Your task to perform on an android device: move a message to another label in the gmail app Image 0: 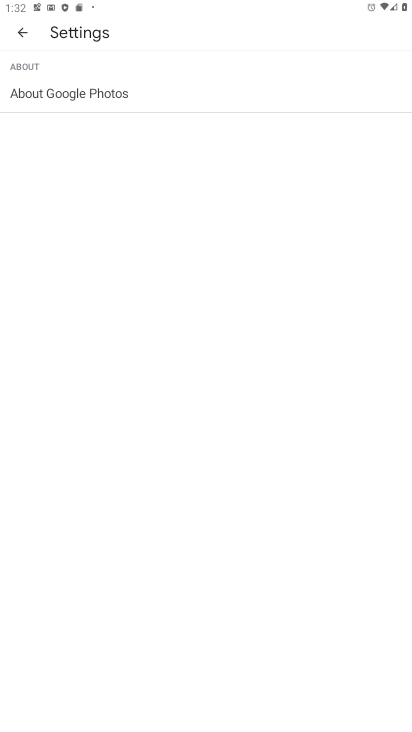
Step 0: press home button
Your task to perform on an android device: move a message to another label in the gmail app Image 1: 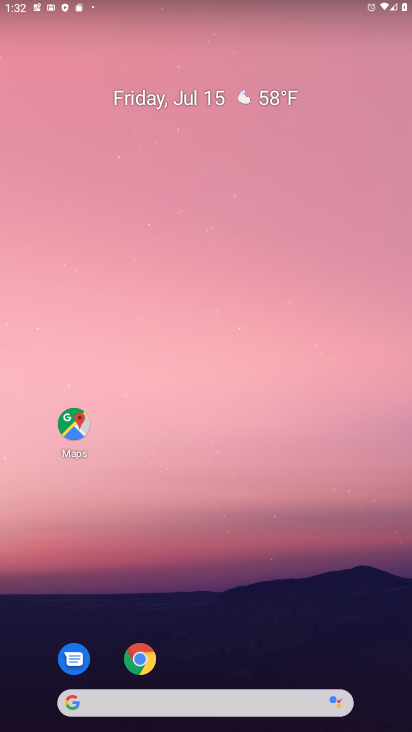
Step 1: drag from (212, 716) to (196, 119)
Your task to perform on an android device: move a message to another label in the gmail app Image 2: 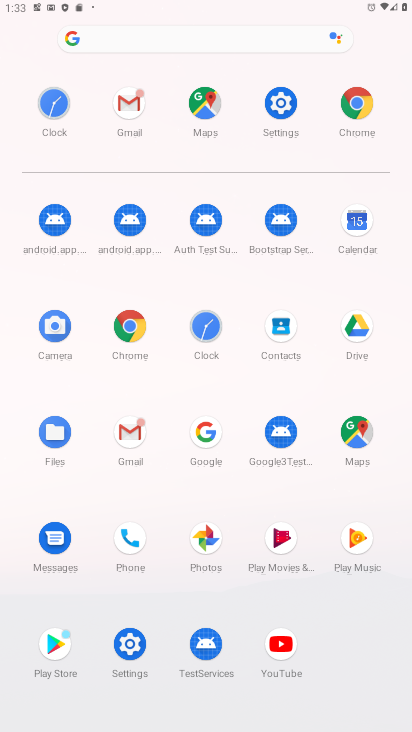
Step 2: click (125, 435)
Your task to perform on an android device: move a message to another label in the gmail app Image 3: 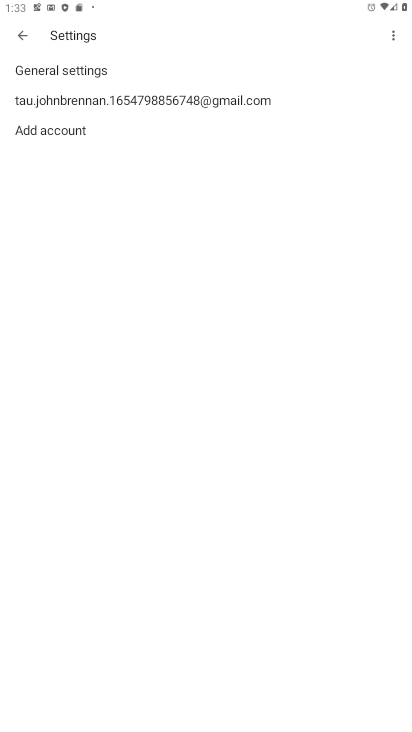
Step 3: click (18, 32)
Your task to perform on an android device: move a message to another label in the gmail app Image 4: 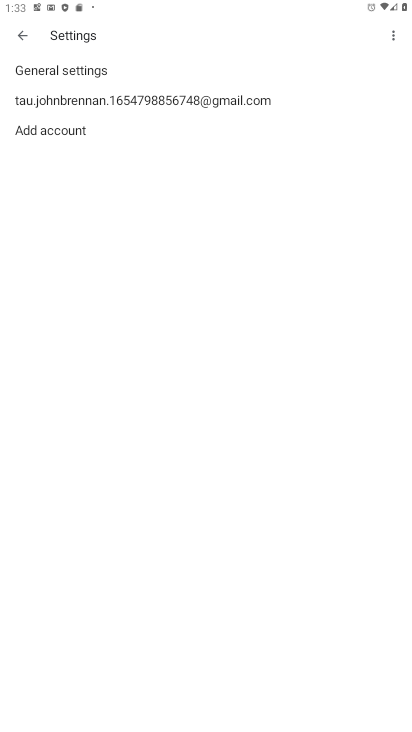
Step 4: click (18, 32)
Your task to perform on an android device: move a message to another label in the gmail app Image 5: 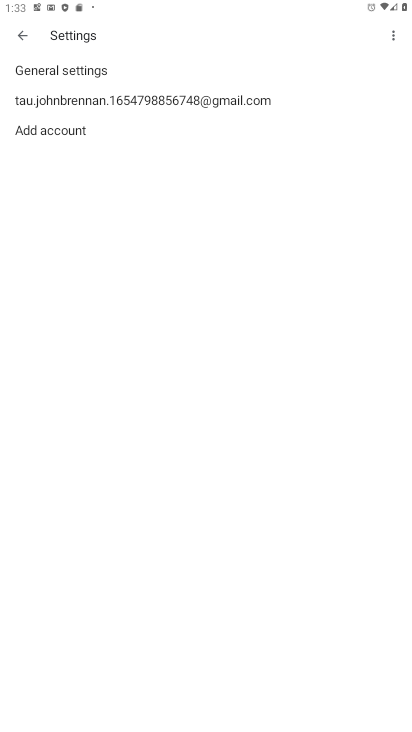
Step 5: click (25, 31)
Your task to perform on an android device: move a message to another label in the gmail app Image 6: 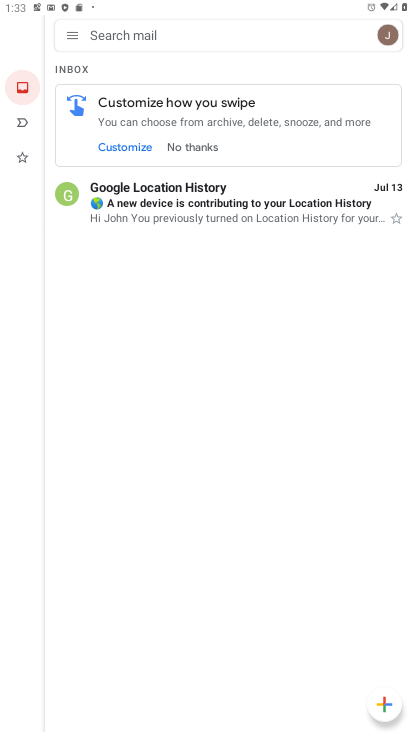
Step 6: click (224, 201)
Your task to perform on an android device: move a message to another label in the gmail app Image 7: 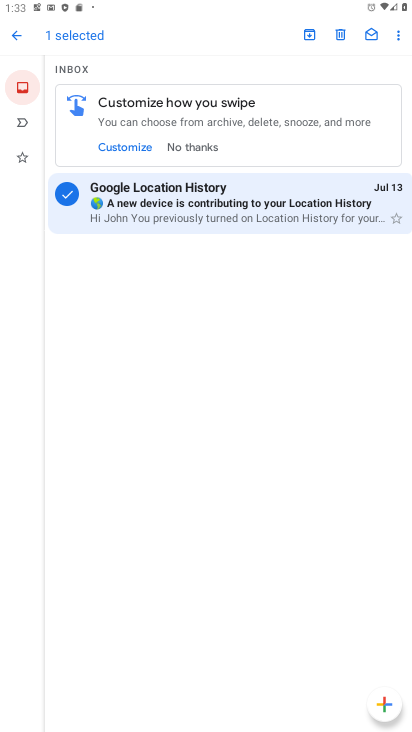
Step 7: click (395, 32)
Your task to perform on an android device: move a message to another label in the gmail app Image 8: 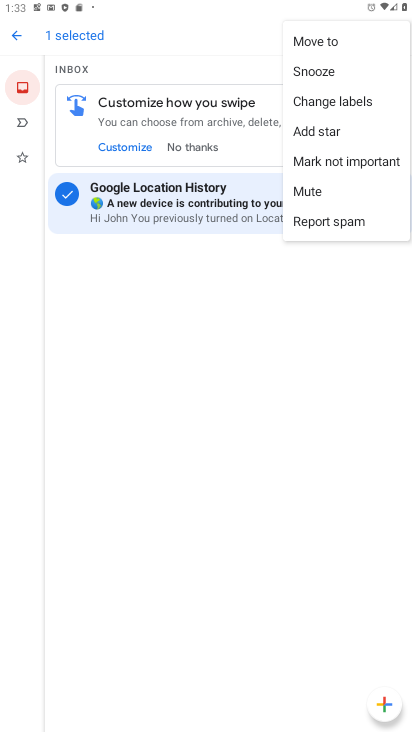
Step 8: click (321, 41)
Your task to perform on an android device: move a message to another label in the gmail app Image 9: 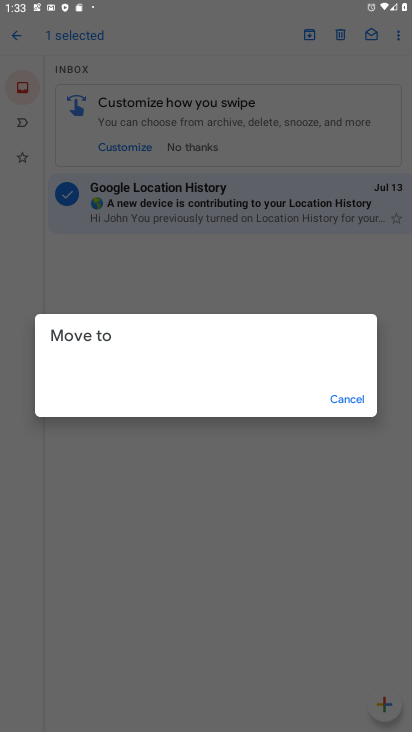
Step 9: task complete